Your task to perform on an android device: check google app version Image 0: 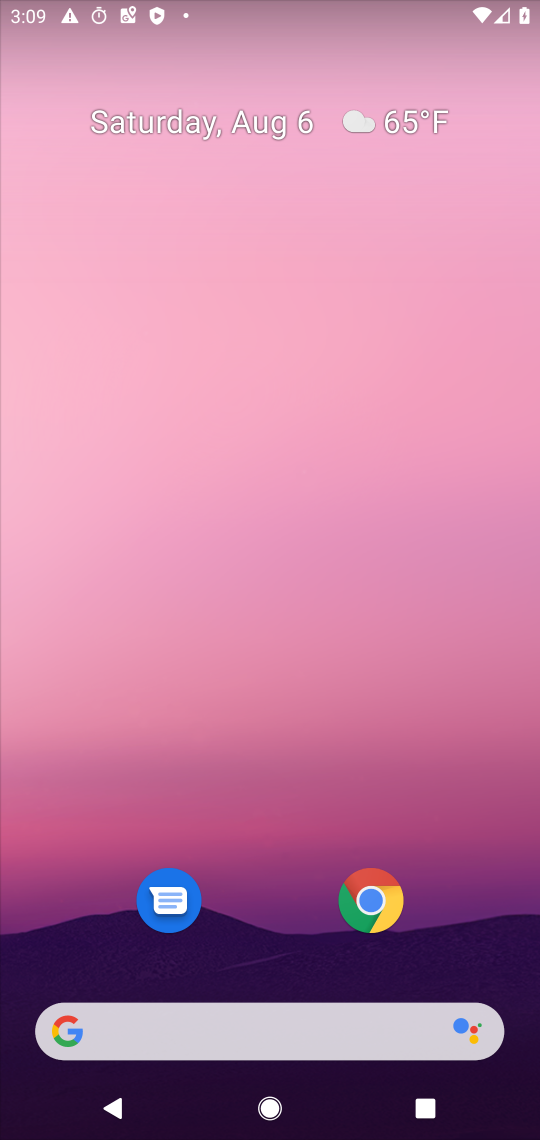
Step 0: press home button
Your task to perform on an android device: check google app version Image 1: 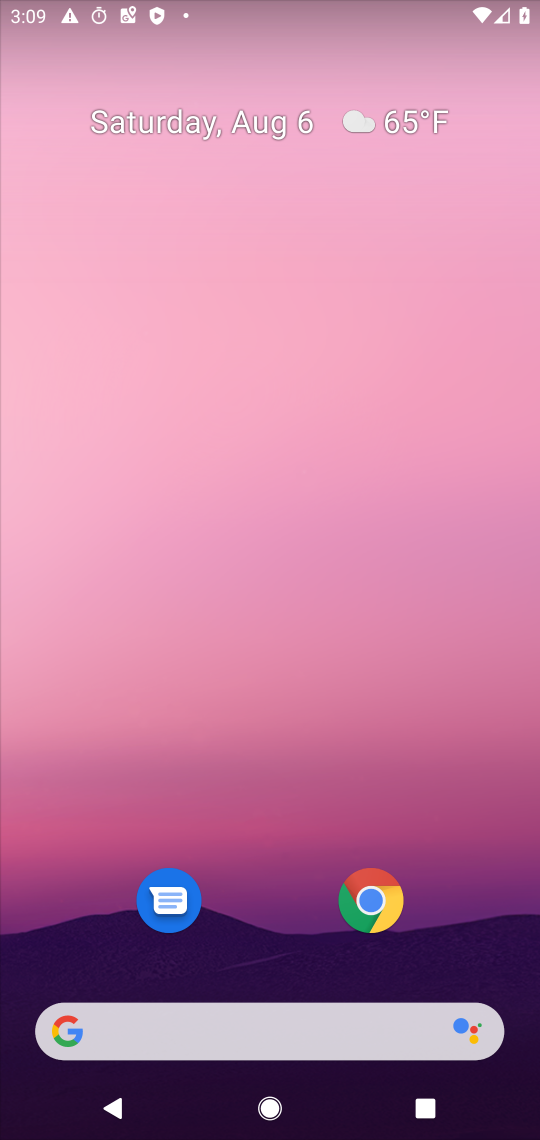
Step 1: drag from (274, 883) to (278, 149)
Your task to perform on an android device: check google app version Image 2: 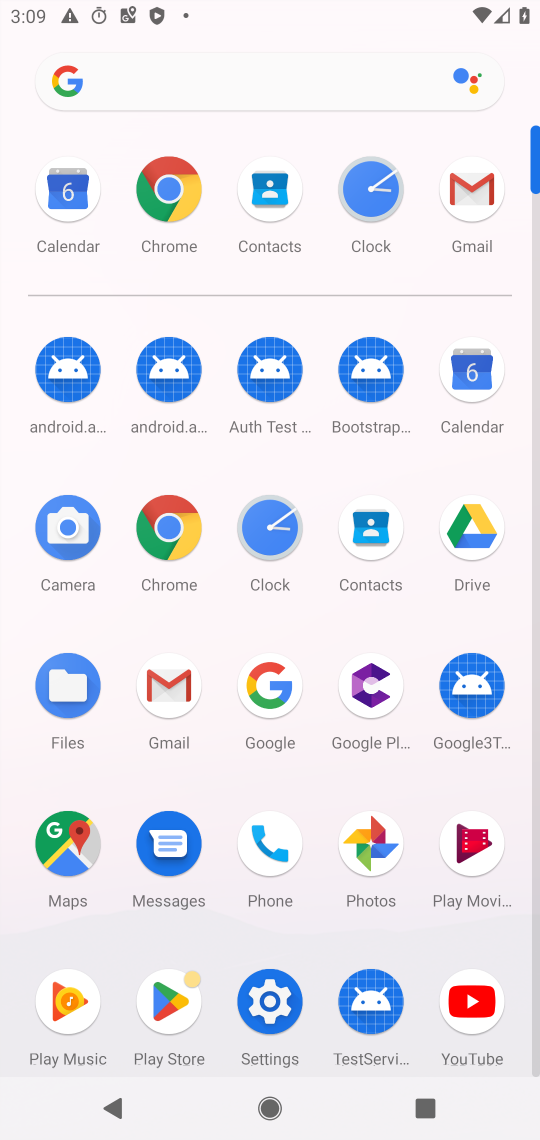
Step 2: click (268, 688)
Your task to perform on an android device: check google app version Image 3: 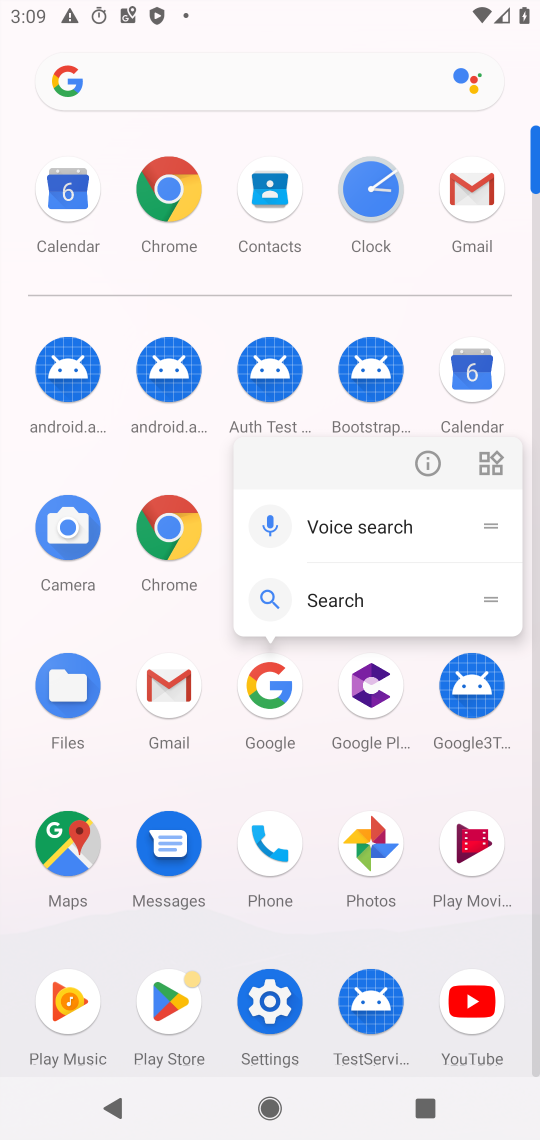
Step 3: click (427, 461)
Your task to perform on an android device: check google app version Image 4: 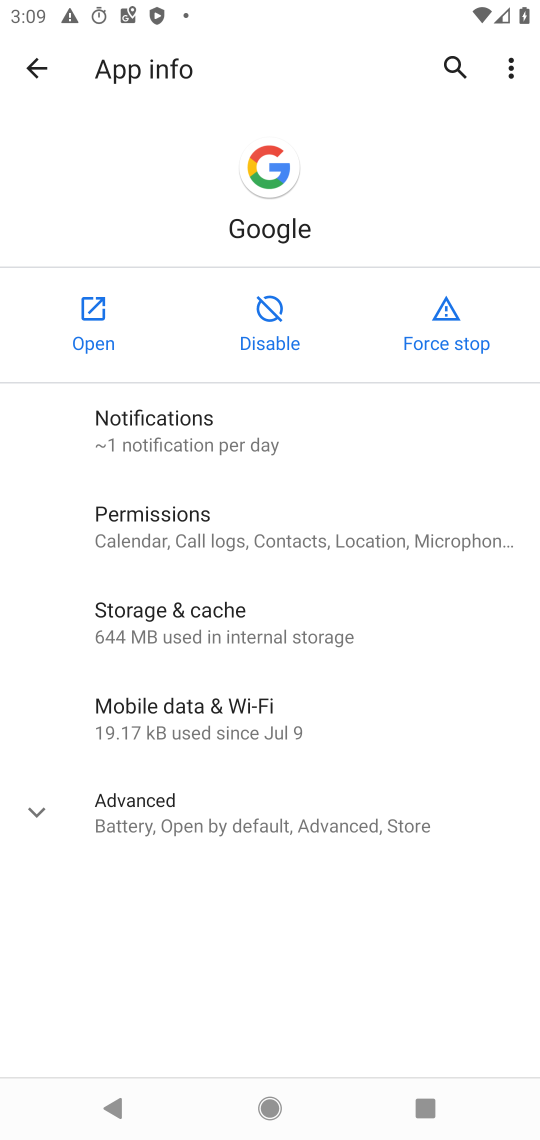
Step 4: click (36, 792)
Your task to perform on an android device: check google app version Image 5: 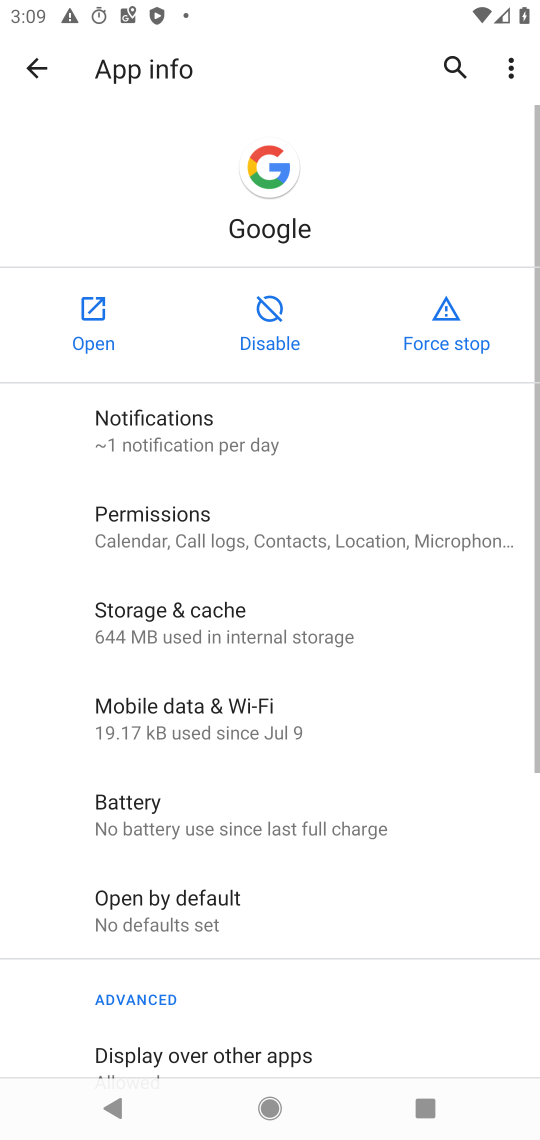
Step 5: task complete